Your task to perform on an android device: open app "Yahoo Mail" Image 0: 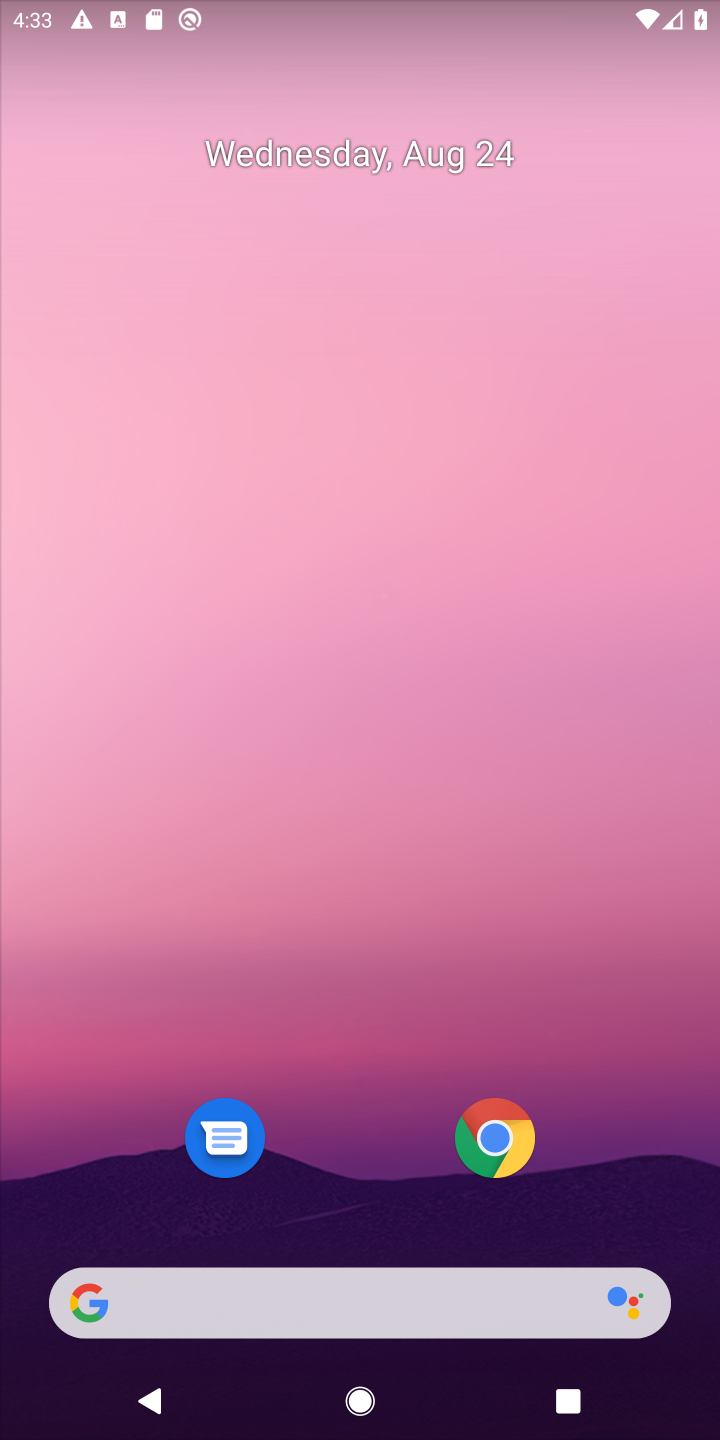
Step 0: drag from (364, 970) to (302, 510)
Your task to perform on an android device: open app "Yahoo Mail" Image 1: 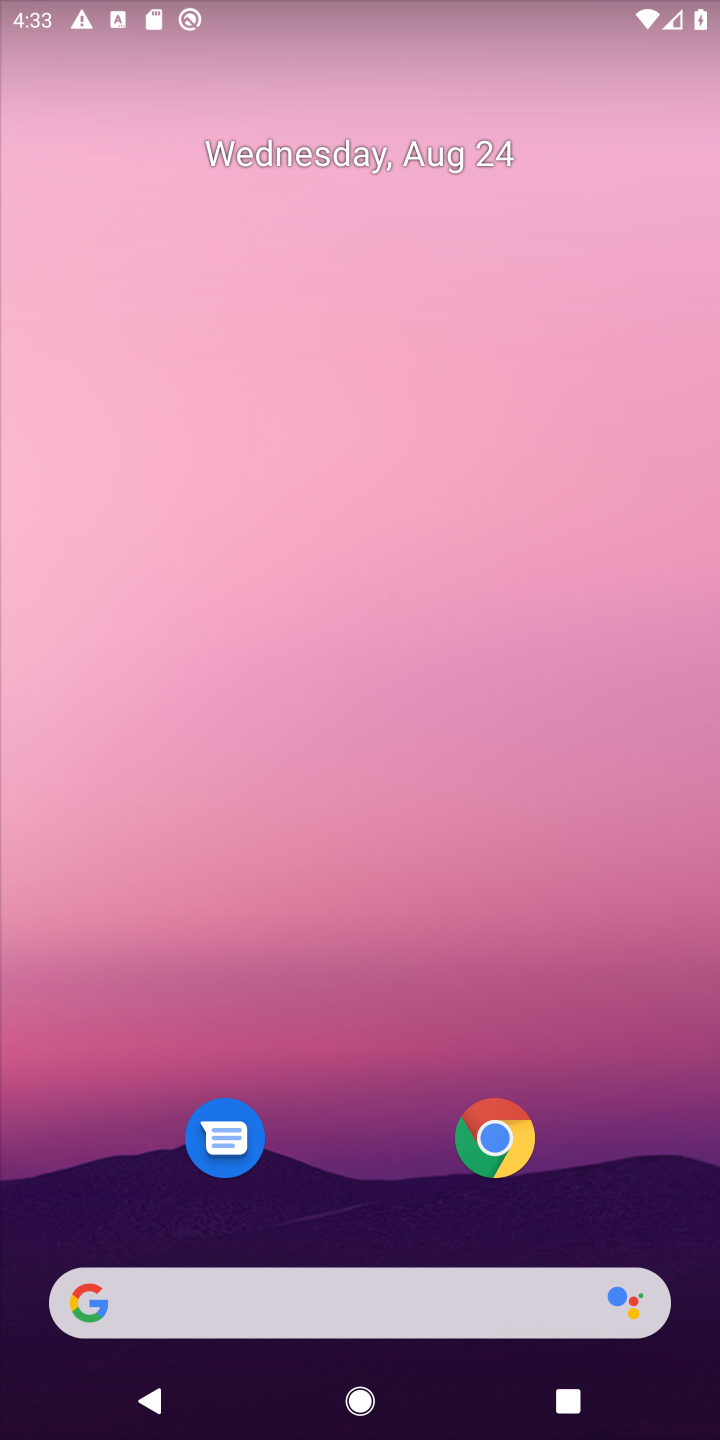
Step 1: drag from (393, 1209) to (343, 39)
Your task to perform on an android device: open app "Yahoo Mail" Image 2: 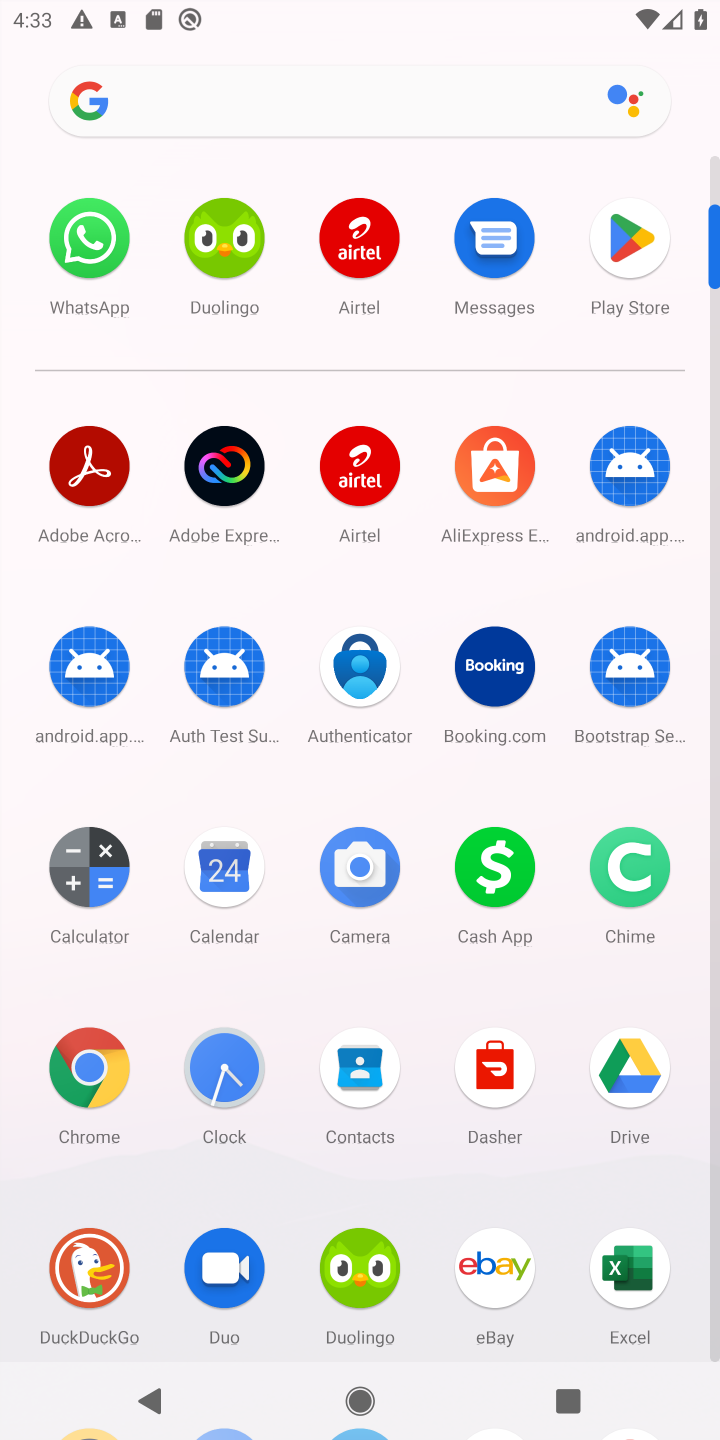
Step 2: click (623, 241)
Your task to perform on an android device: open app "Yahoo Mail" Image 3: 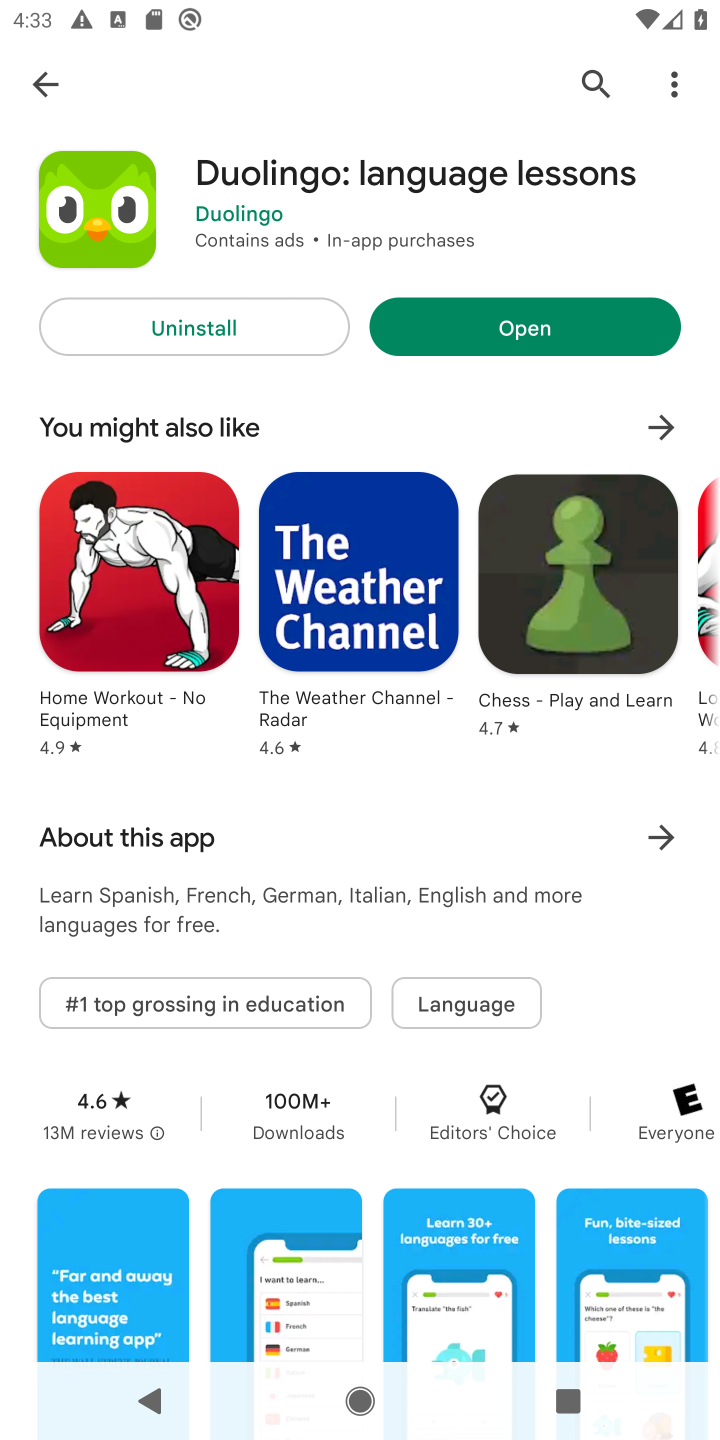
Step 3: click (592, 77)
Your task to perform on an android device: open app "Yahoo Mail" Image 4: 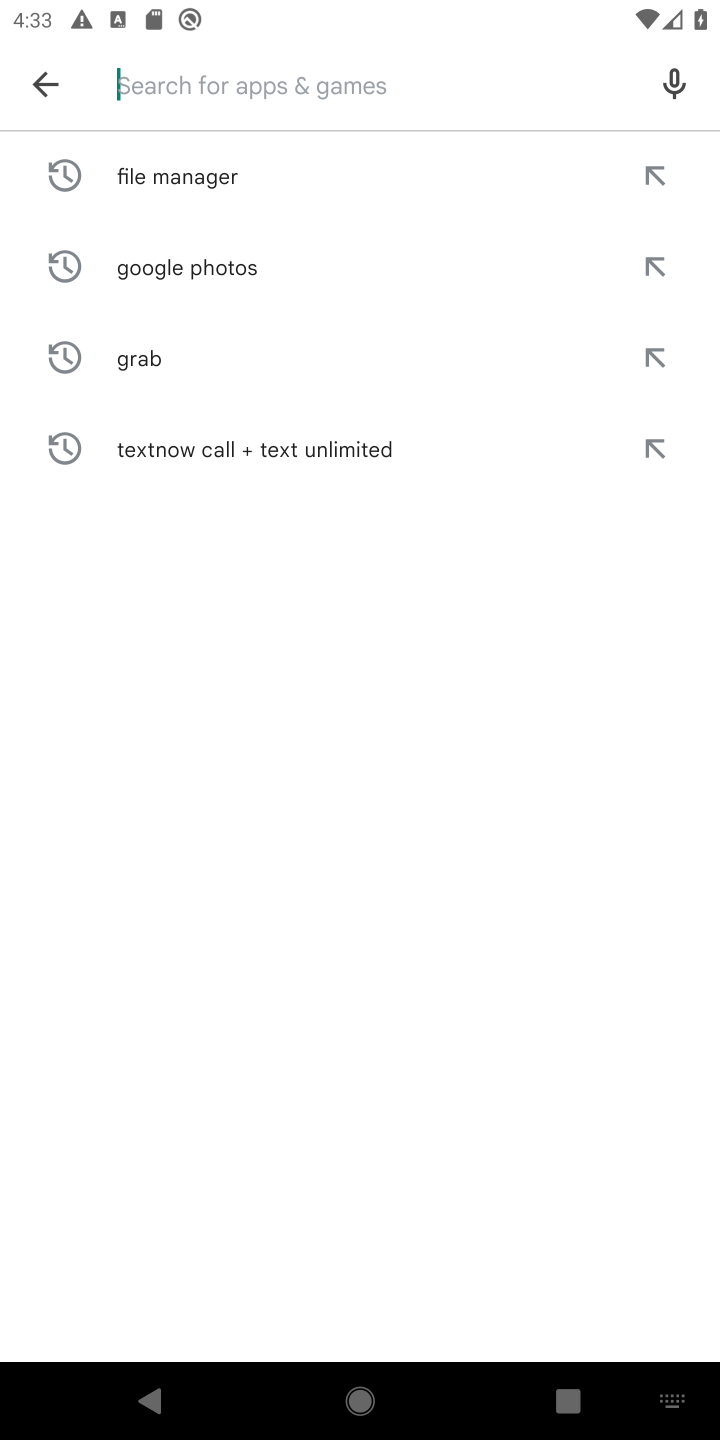
Step 4: type "Yahoo Mail"
Your task to perform on an android device: open app "Yahoo Mail" Image 5: 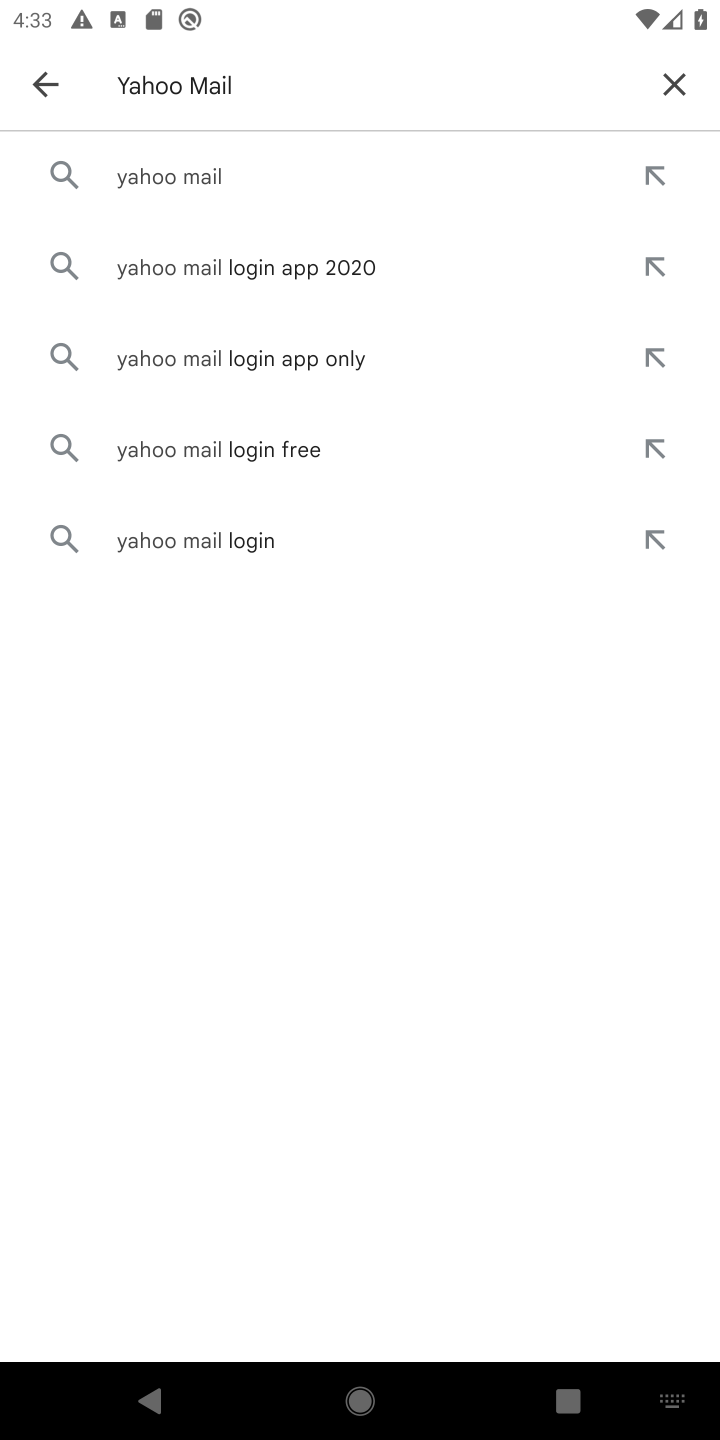
Step 5: click (146, 175)
Your task to perform on an android device: open app "Yahoo Mail" Image 6: 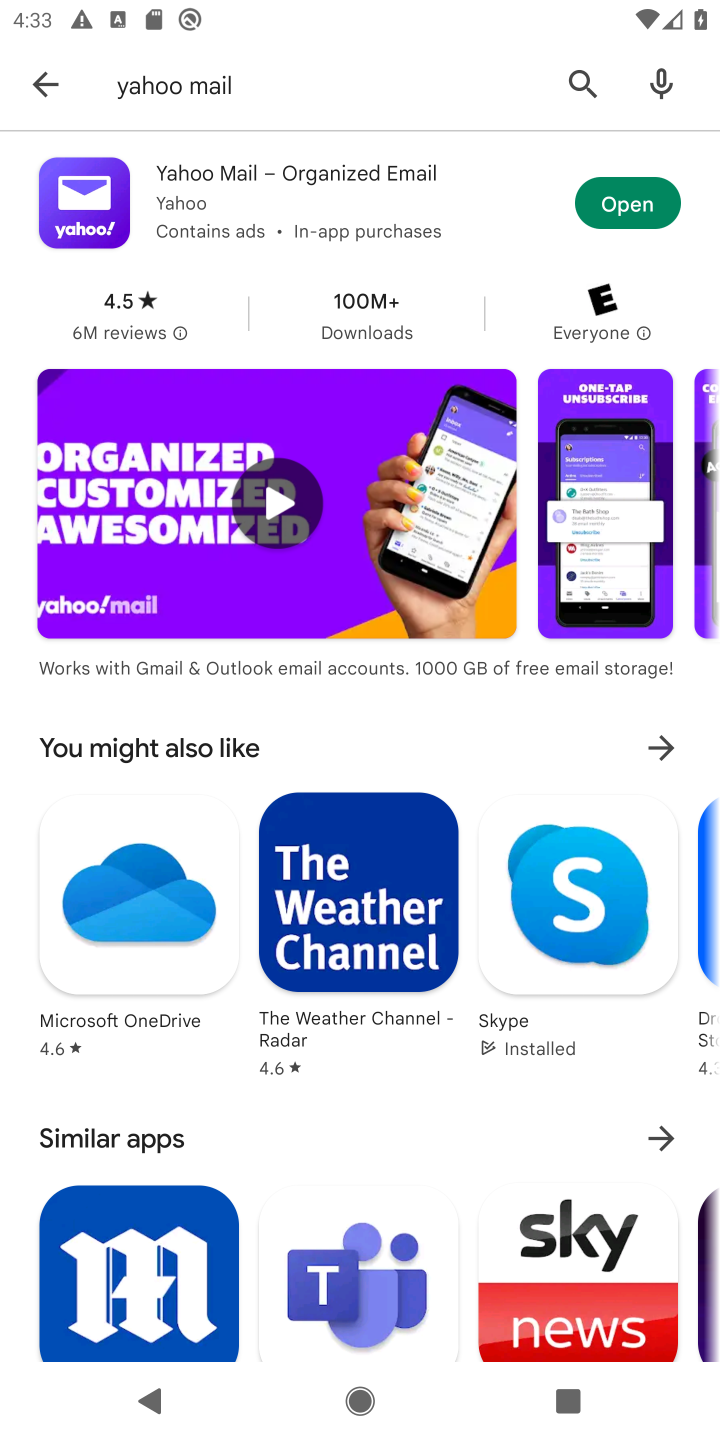
Step 6: click (637, 212)
Your task to perform on an android device: open app "Yahoo Mail" Image 7: 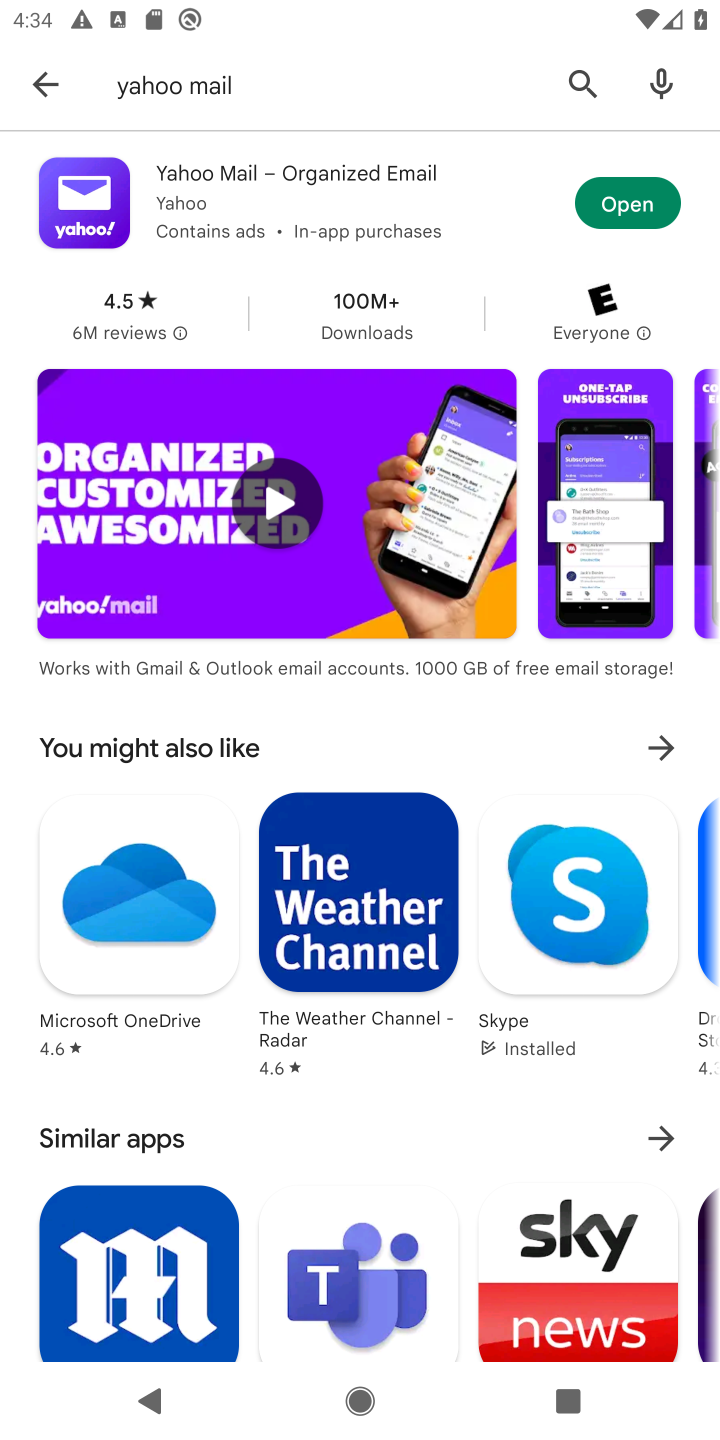
Step 7: click (648, 200)
Your task to perform on an android device: open app "Yahoo Mail" Image 8: 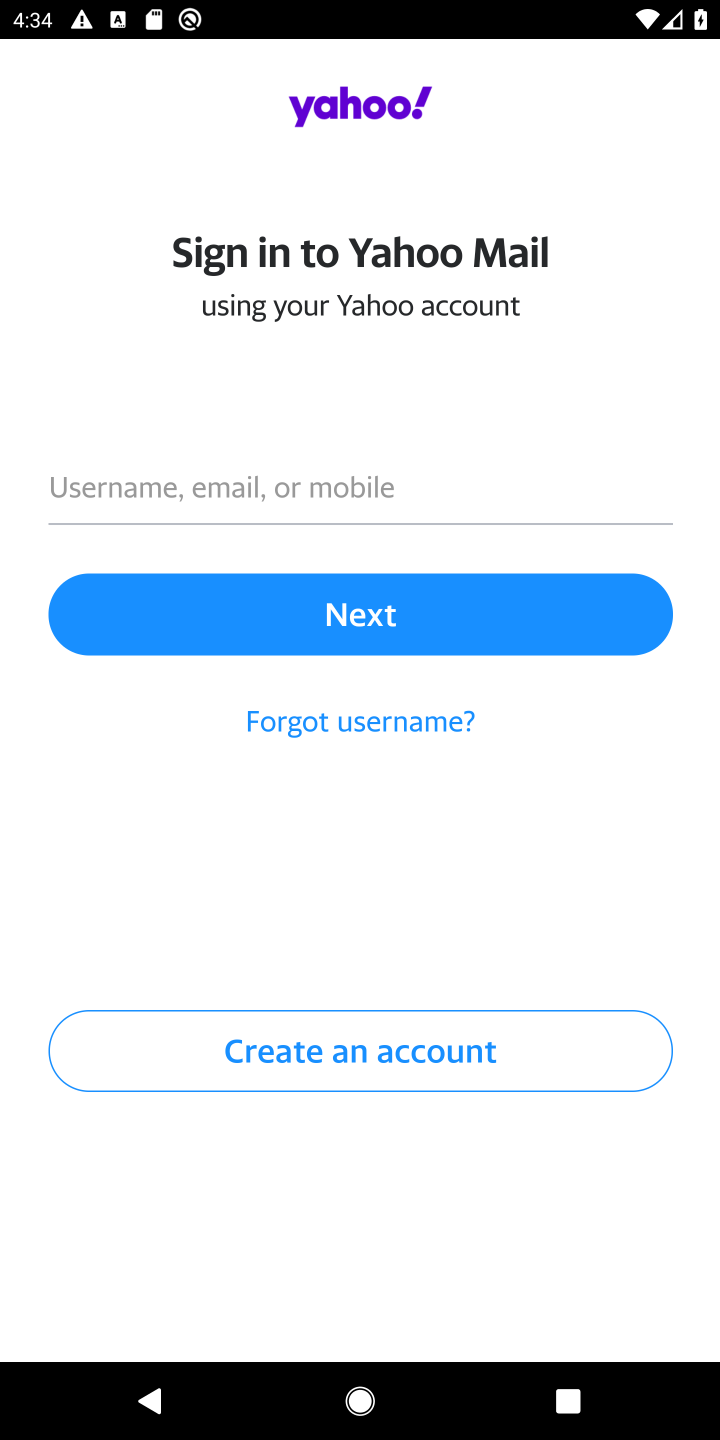
Step 8: task complete